Your task to perform on an android device: Go to settings Image 0: 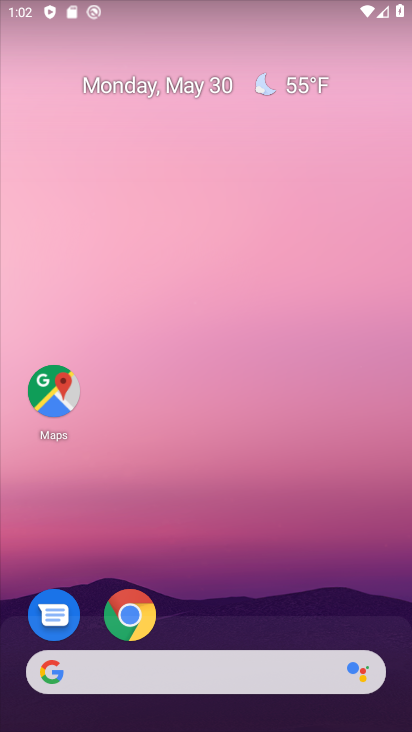
Step 0: drag from (282, 672) to (296, 248)
Your task to perform on an android device: Go to settings Image 1: 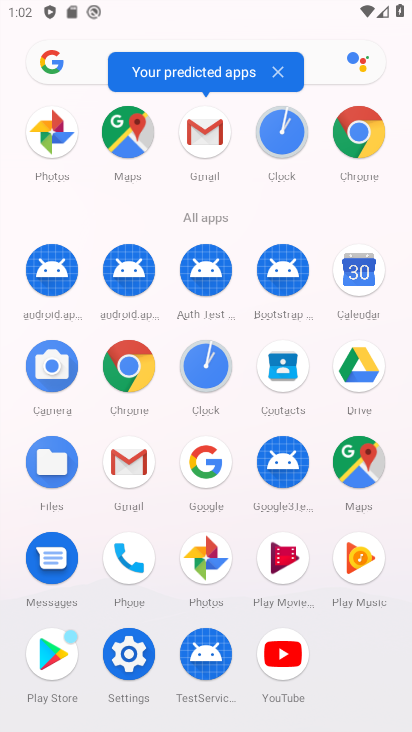
Step 1: click (119, 650)
Your task to perform on an android device: Go to settings Image 2: 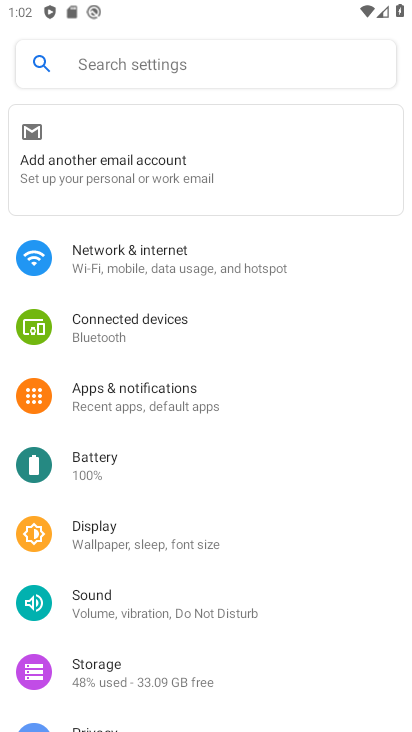
Step 2: task complete